Your task to perform on an android device: Go to display settings Image 0: 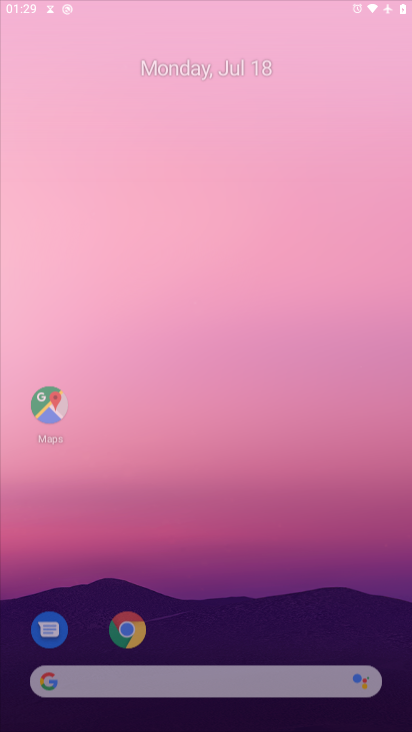
Step 0: press home button
Your task to perform on an android device: Go to display settings Image 1: 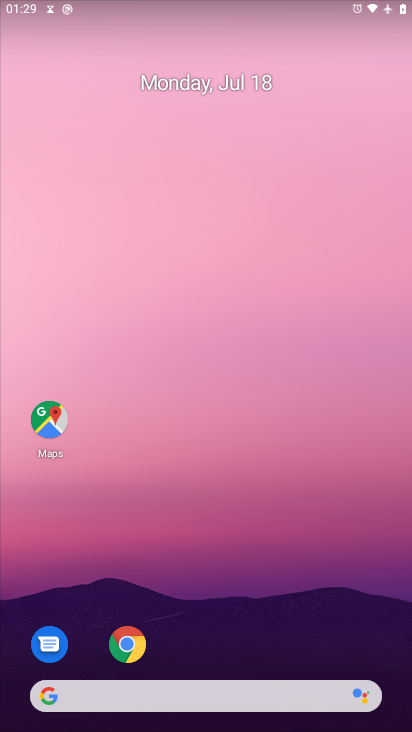
Step 1: drag from (248, 646) to (286, 57)
Your task to perform on an android device: Go to display settings Image 2: 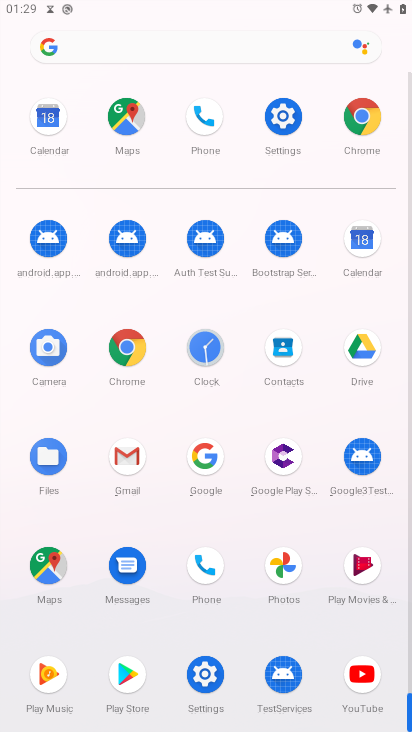
Step 2: click (280, 122)
Your task to perform on an android device: Go to display settings Image 3: 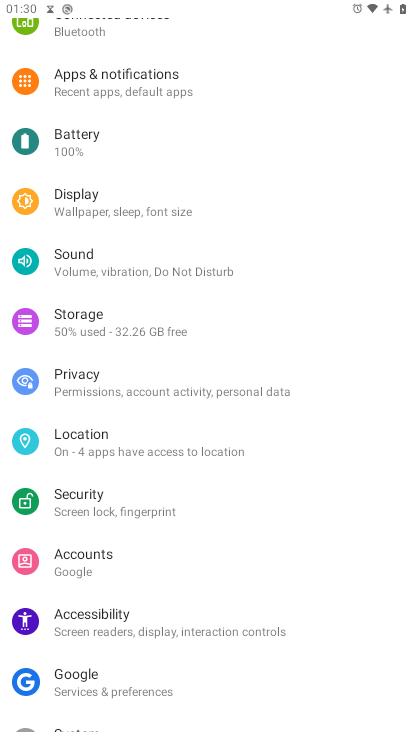
Step 3: click (77, 204)
Your task to perform on an android device: Go to display settings Image 4: 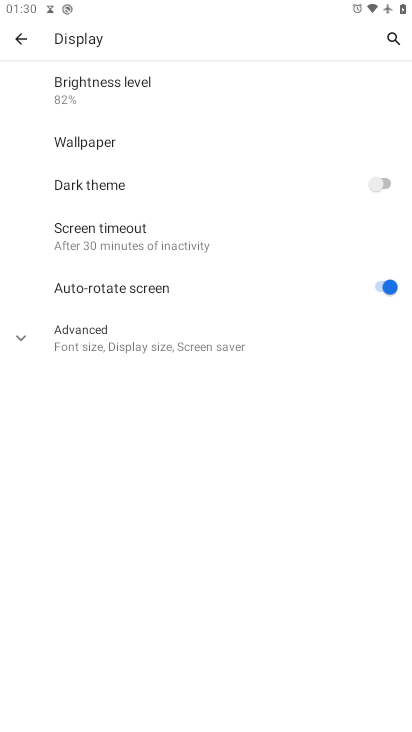
Step 4: task complete